Your task to perform on an android device: Open Chrome and go to the settings page Image 0: 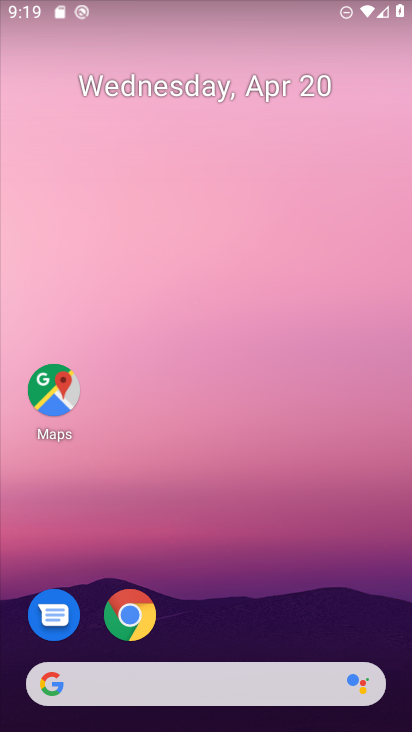
Step 0: click (129, 616)
Your task to perform on an android device: Open Chrome and go to the settings page Image 1: 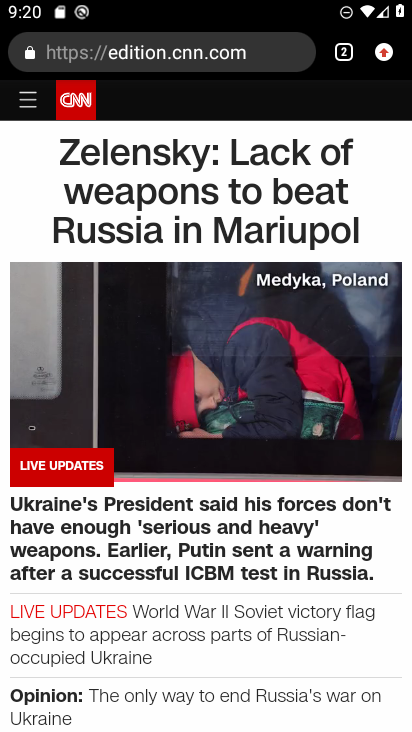
Step 1: click (384, 54)
Your task to perform on an android device: Open Chrome and go to the settings page Image 2: 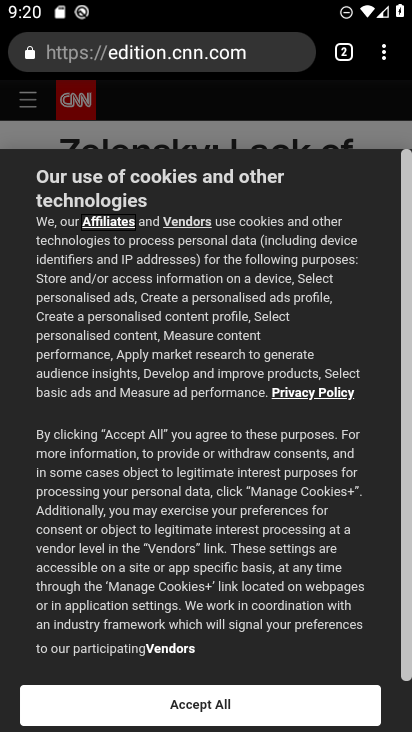
Step 2: task complete